Your task to perform on an android device: install app "Pinterest" Image 0: 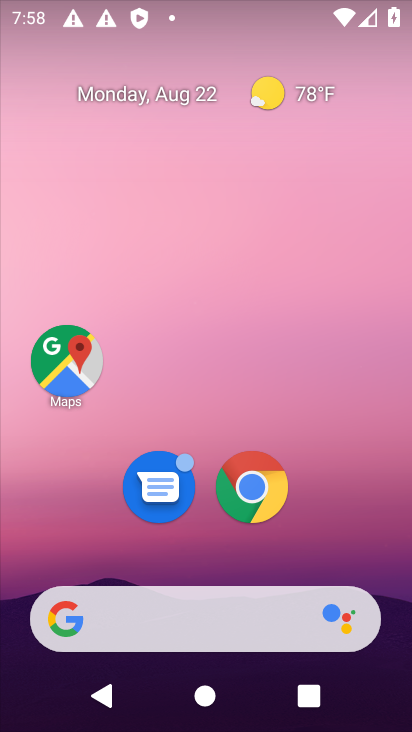
Step 0: drag from (205, 507) to (190, 99)
Your task to perform on an android device: install app "Pinterest" Image 1: 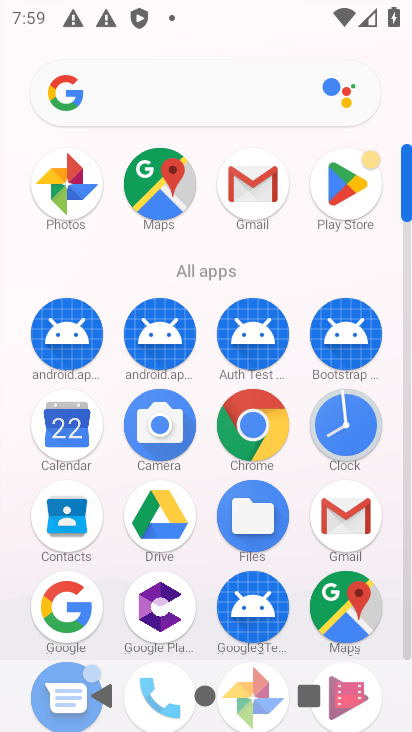
Step 1: click (338, 181)
Your task to perform on an android device: install app "Pinterest" Image 2: 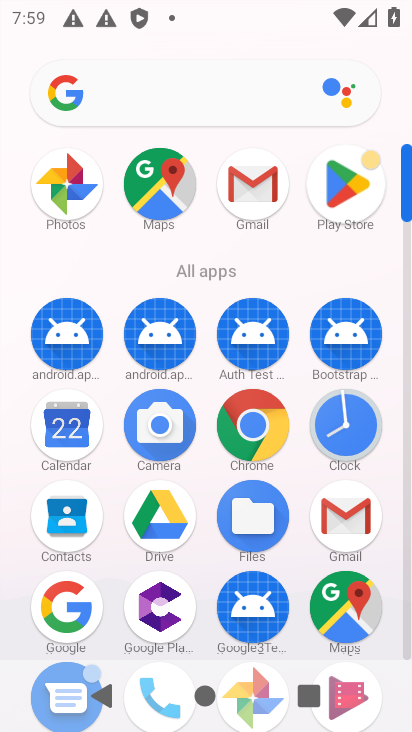
Step 2: click (347, 186)
Your task to perform on an android device: install app "Pinterest" Image 3: 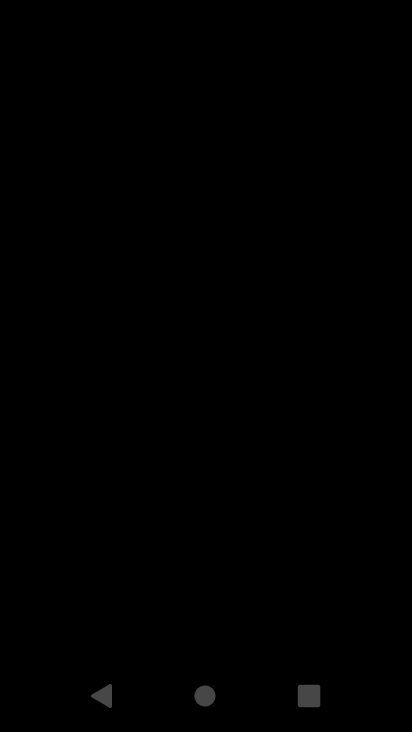
Step 3: task complete